Your task to perform on an android device: find photos in the google photos app Image 0: 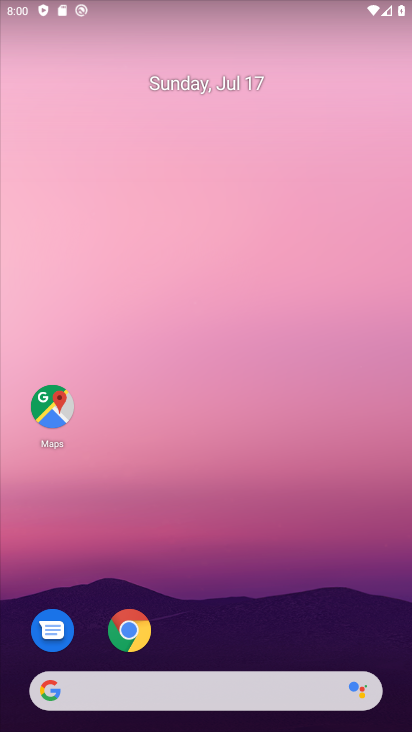
Step 0: drag from (326, 625) to (337, 165)
Your task to perform on an android device: find photos in the google photos app Image 1: 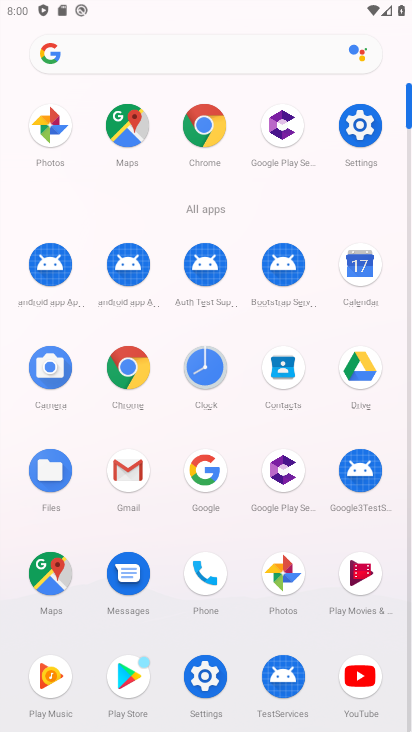
Step 1: click (288, 577)
Your task to perform on an android device: find photos in the google photos app Image 2: 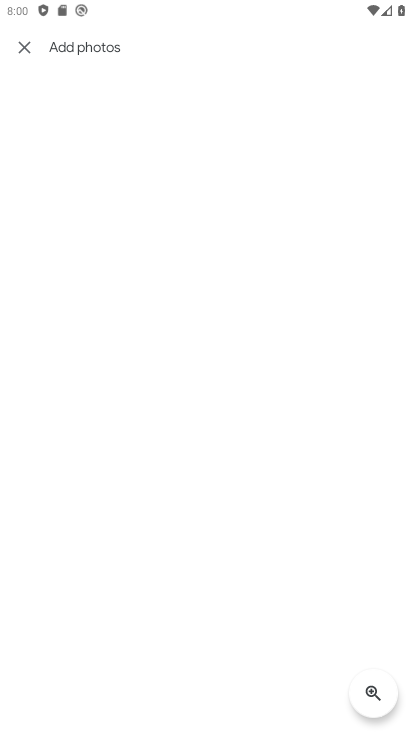
Step 2: press back button
Your task to perform on an android device: find photos in the google photos app Image 3: 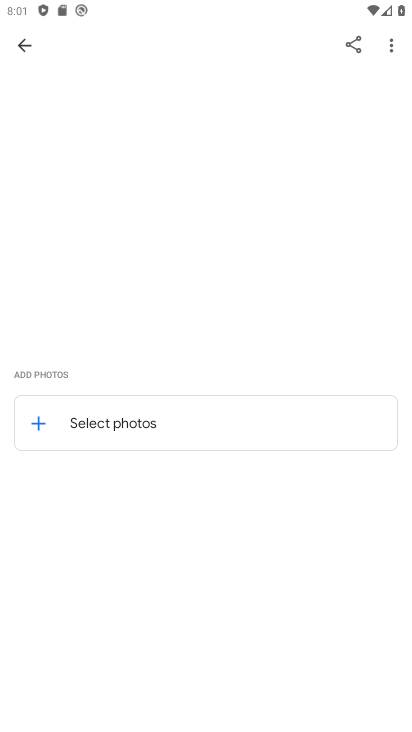
Step 3: press back button
Your task to perform on an android device: find photos in the google photos app Image 4: 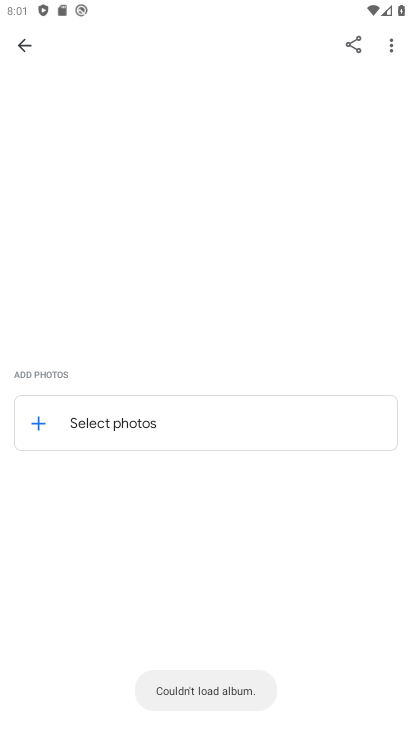
Step 4: press back button
Your task to perform on an android device: find photos in the google photos app Image 5: 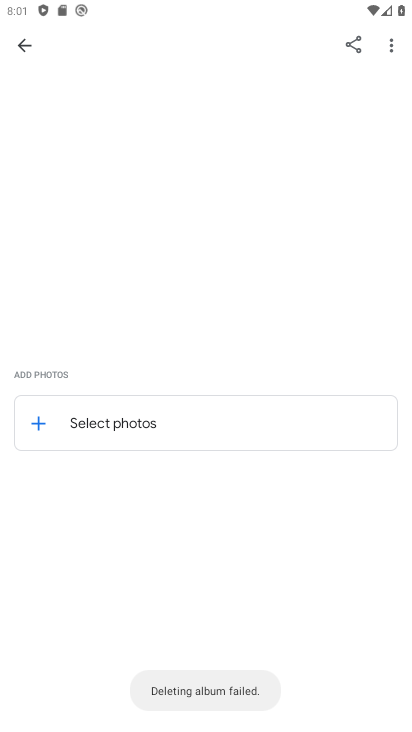
Step 5: press back button
Your task to perform on an android device: find photos in the google photos app Image 6: 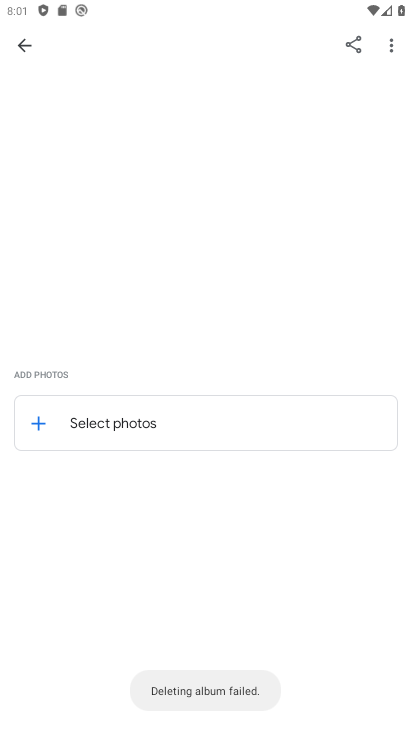
Step 6: click (24, 48)
Your task to perform on an android device: find photos in the google photos app Image 7: 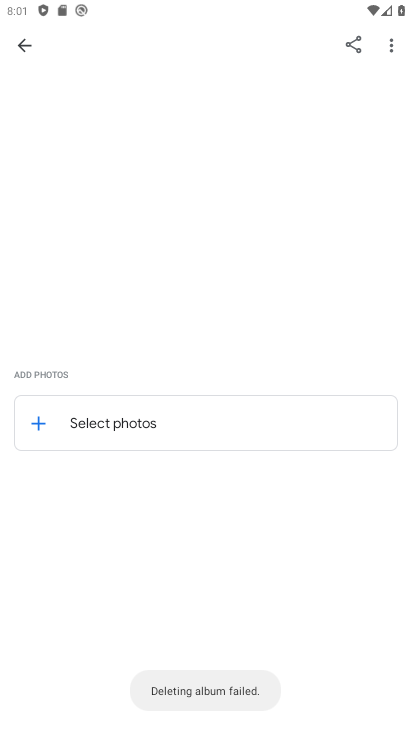
Step 7: click (22, 42)
Your task to perform on an android device: find photos in the google photos app Image 8: 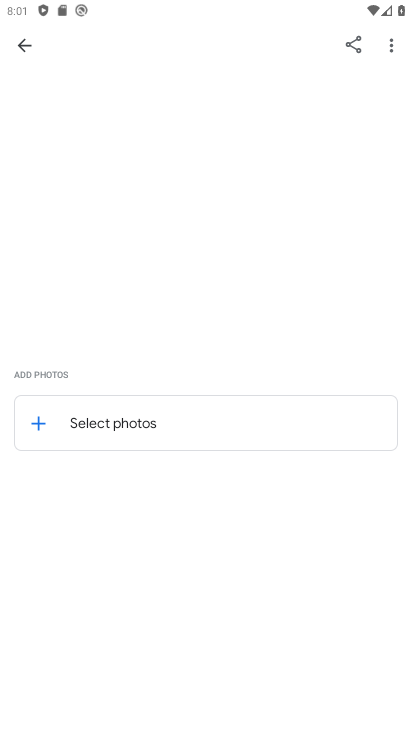
Step 8: click (29, 40)
Your task to perform on an android device: find photos in the google photos app Image 9: 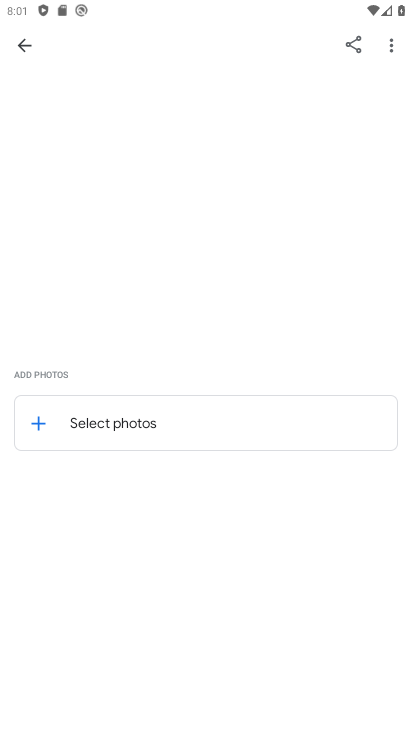
Step 9: task complete